Your task to perform on an android device: star an email in the gmail app Image 0: 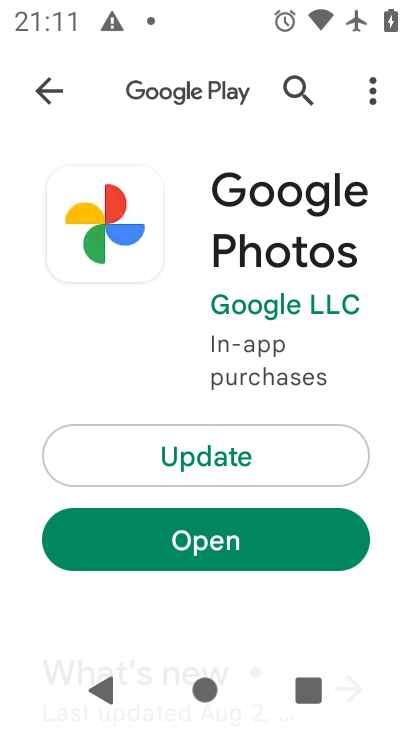
Step 0: press home button
Your task to perform on an android device: star an email in the gmail app Image 1: 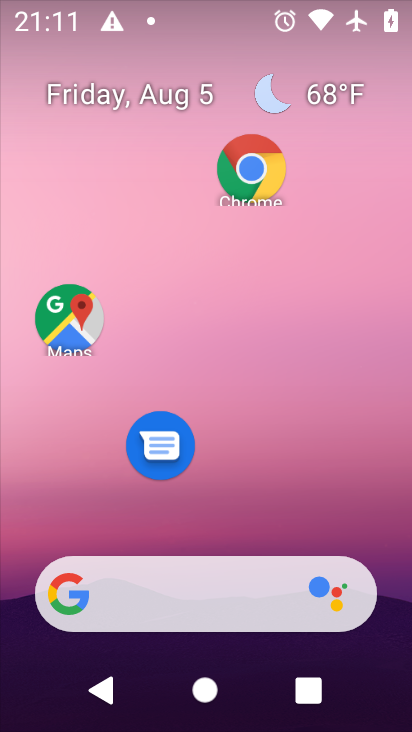
Step 1: drag from (217, 516) to (165, 107)
Your task to perform on an android device: star an email in the gmail app Image 2: 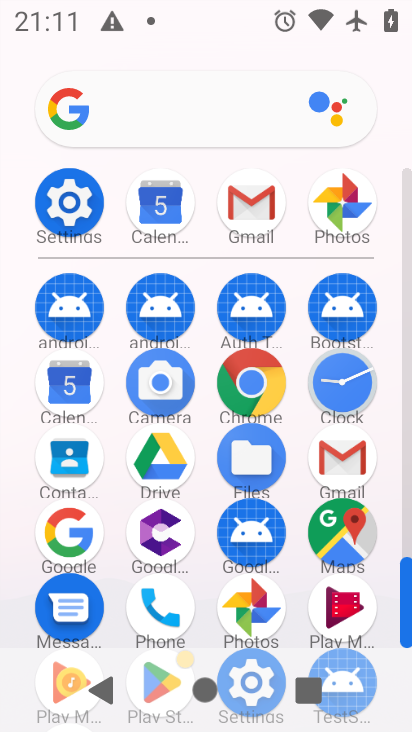
Step 2: click (221, 192)
Your task to perform on an android device: star an email in the gmail app Image 3: 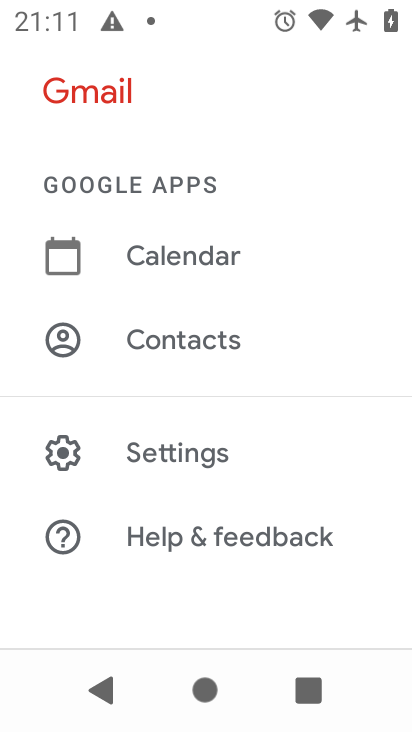
Step 3: task complete